Your task to perform on an android device: set default search engine in the chrome app Image 0: 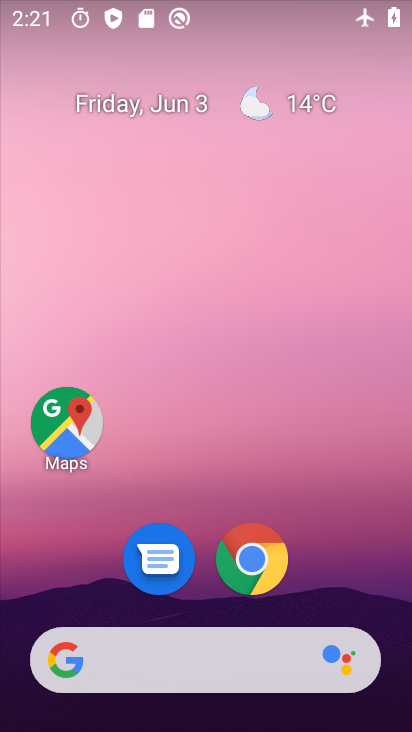
Step 0: drag from (220, 621) to (370, 270)
Your task to perform on an android device: set default search engine in the chrome app Image 1: 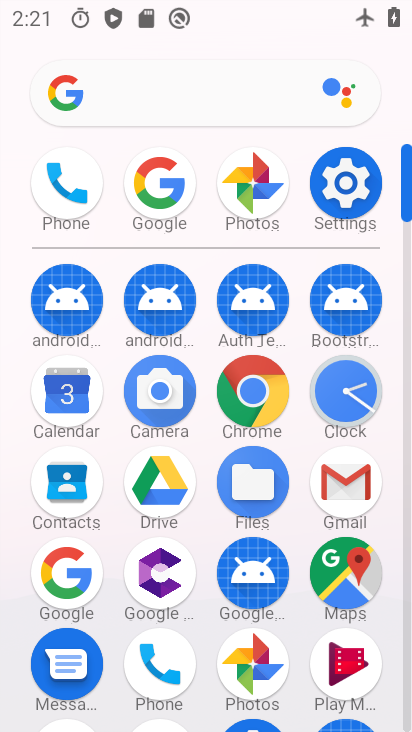
Step 1: click (251, 409)
Your task to perform on an android device: set default search engine in the chrome app Image 2: 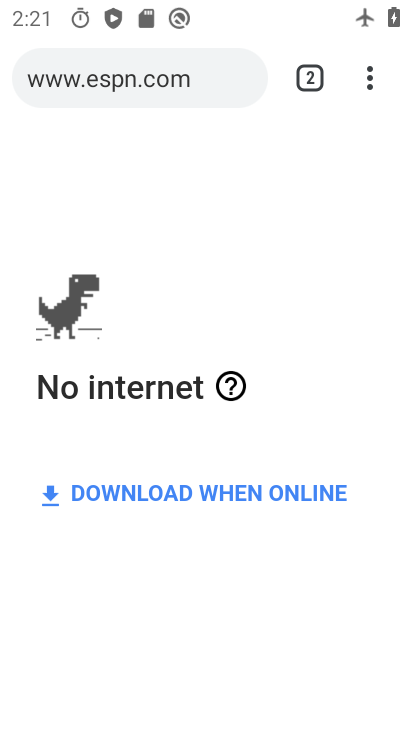
Step 2: press home button
Your task to perform on an android device: set default search engine in the chrome app Image 3: 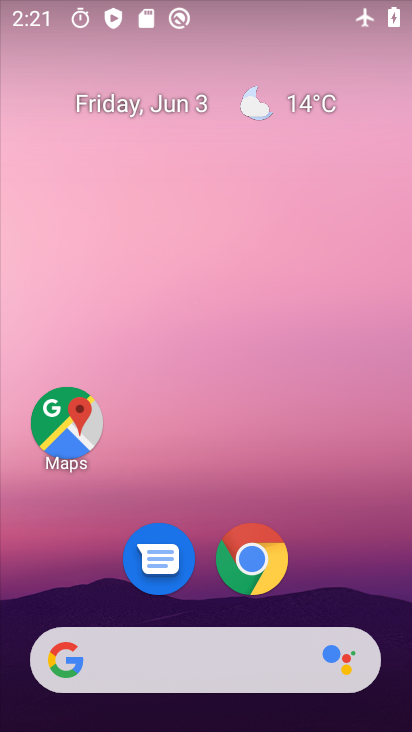
Step 3: click (255, 571)
Your task to perform on an android device: set default search engine in the chrome app Image 4: 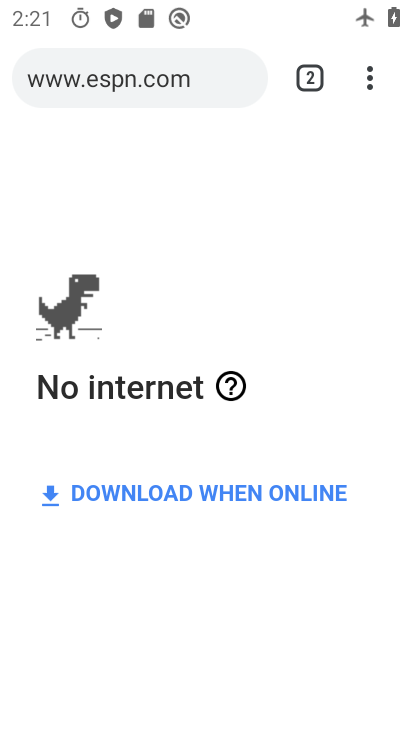
Step 4: click (372, 82)
Your task to perform on an android device: set default search engine in the chrome app Image 5: 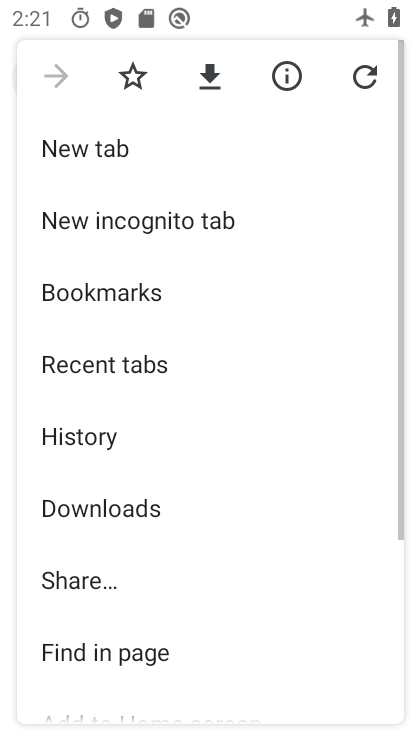
Step 5: drag from (182, 589) to (184, 115)
Your task to perform on an android device: set default search engine in the chrome app Image 6: 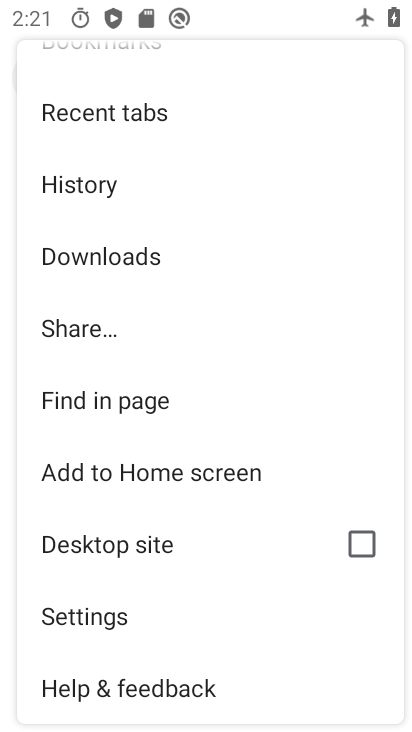
Step 6: click (163, 641)
Your task to perform on an android device: set default search engine in the chrome app Image 7: 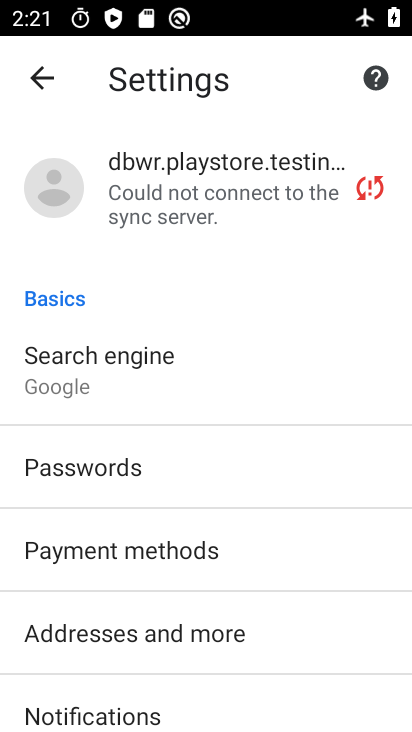
Step 7: click (101, 402)
Your task to perform on an android device: set default search engine in the chrome app Image 8: 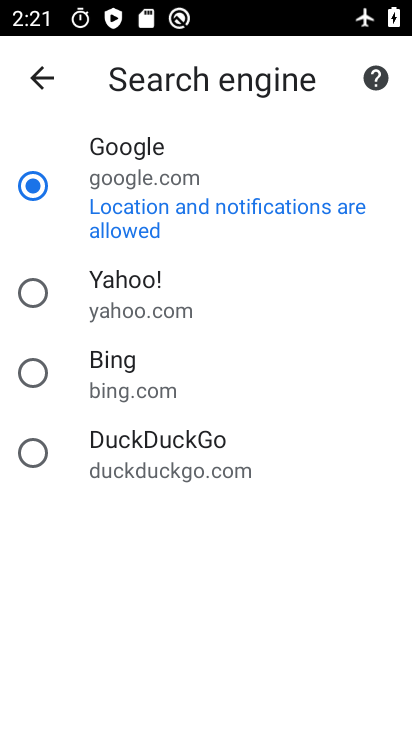
Step 8: task complete